Your task to perform on an android device: Toggle the flashlight Image 0: 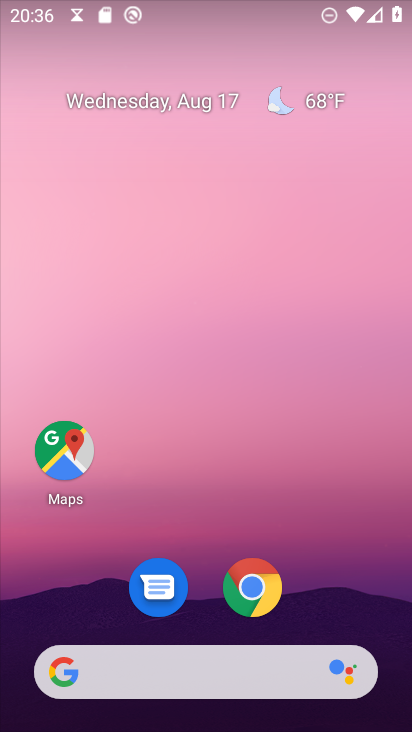
Step 0: drag from (10, 696) to (148, 363)
Your task to perform on an android device: Toggle the flashlight Image 1: 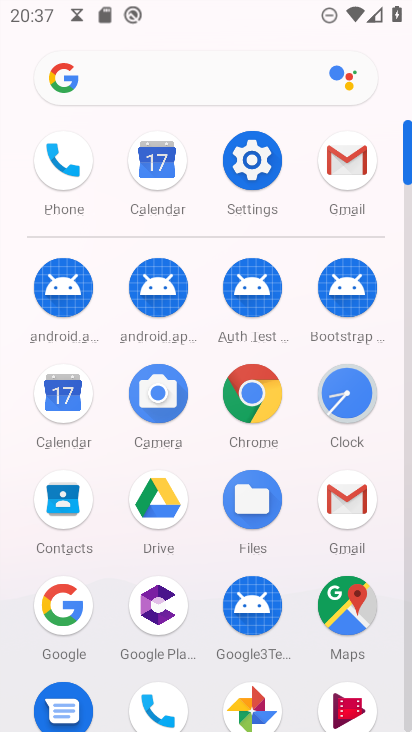
Step 1: task complete